Your task to perform on an android device: Turn off the flashlight Image 0: 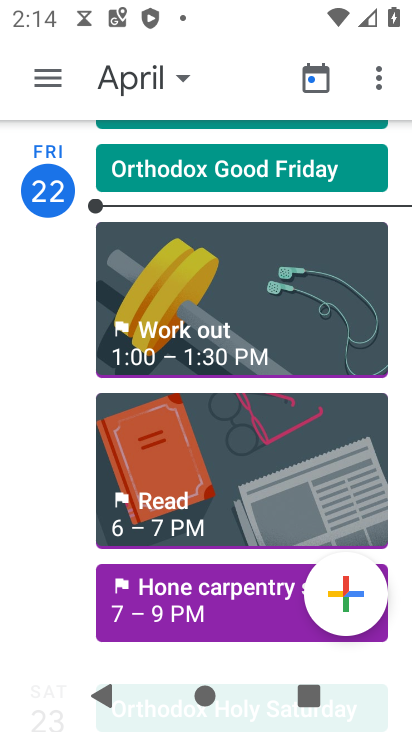
Step 0: press home button
Your task to perform on an android device: Turn off the flashlight Image 1: 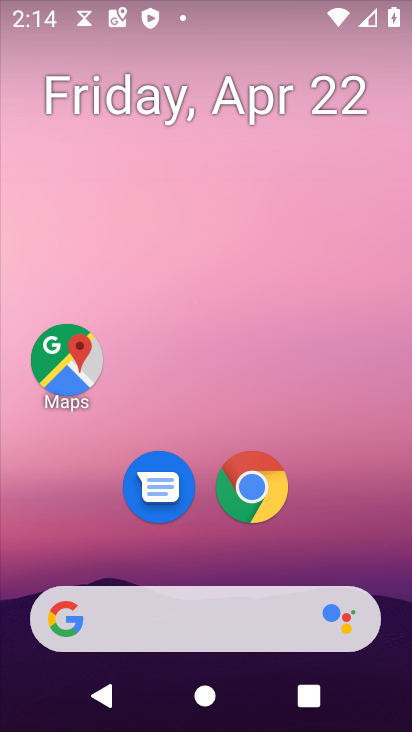
Step 1: task complete